Your task to perform on an android device: Show me popular videos on Youtube Image 0: 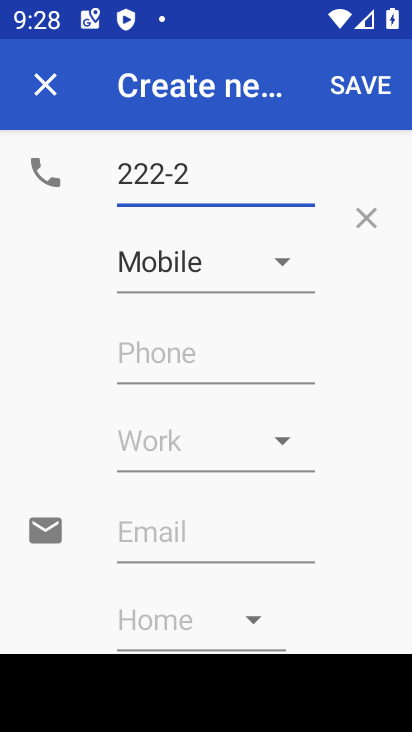
Step 0: press home button
Your task to perform on an android device: Show me popular videos on Youtube Image 1: 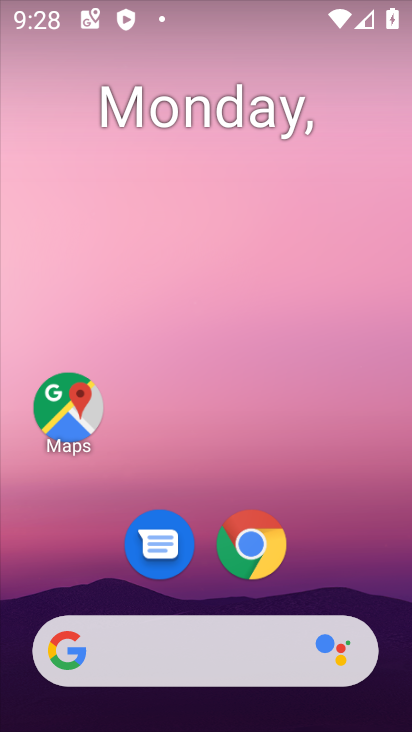
Step 1: drag from (367, 525) to (279, 41)
Your task to perform on an android device: Show me popular videos on Youtube Image 2: 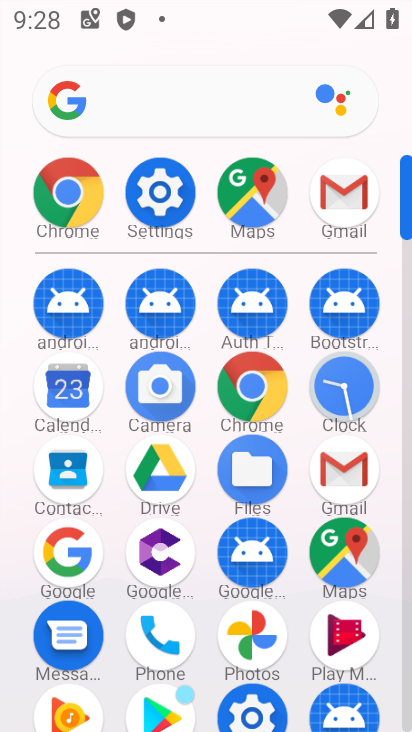
Step 2: drag from (118, 662) to (120, 210)
Your task to perform on an android device: Show me popular videos on Youtube Image 3: 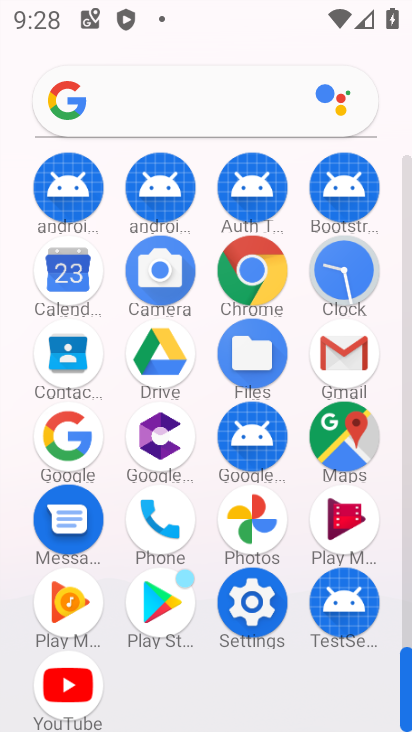
Step 3: click (72, 677)
Your task to perform on an android device: Show me popular videos on Youtube Image 4: 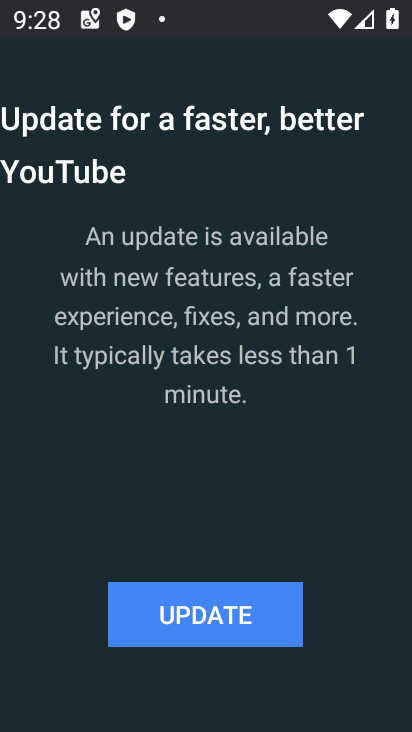
Step 4: click (204, 618)
Your task to perform on an android device: Show me popular videos on Youtube Image 5: 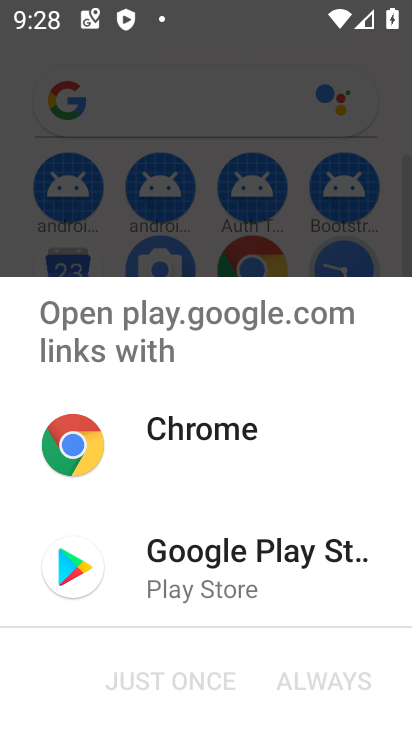
Step 5: click (220, 564)
Your task to perform on an android device: Show me popular videos on Youtube Image 6: 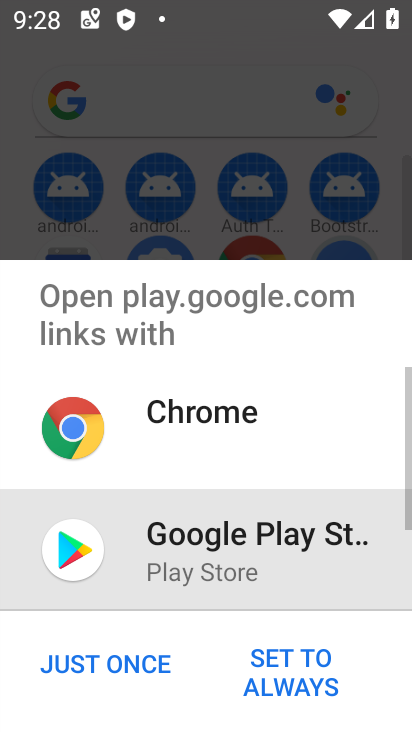
Step 6: click (98, 667)
Your task to perform on an android device: Show me popular videos on Youtube Image 7: 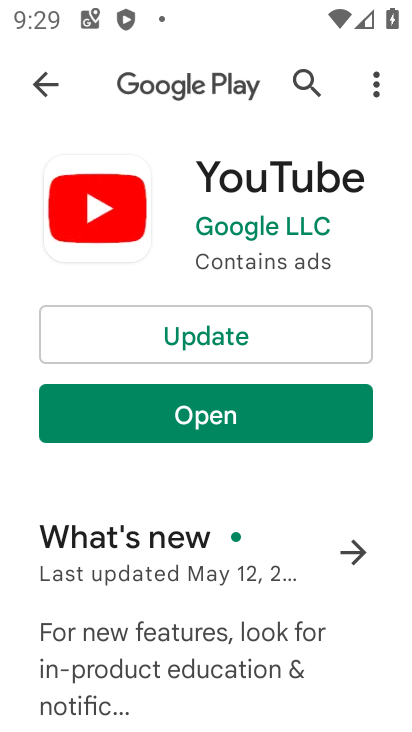
Step 7: click (208, 339)
Your task to perform on an android device: Show me popular videos on Youtube Image 8: 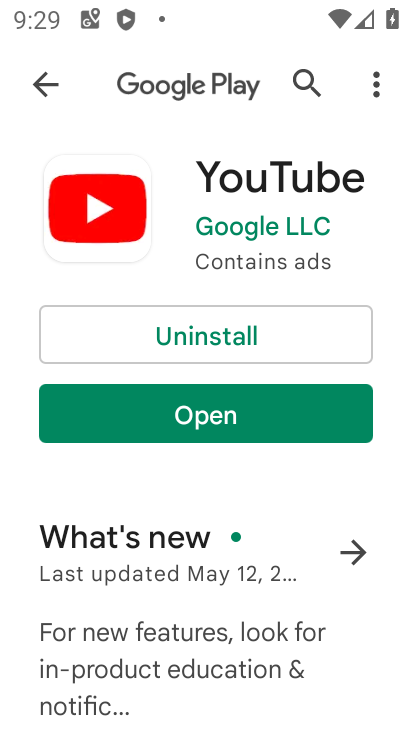
Step 8: click (200, 427)
Your task to perform on an android device: Show me popular videos on Youtube Image 9: 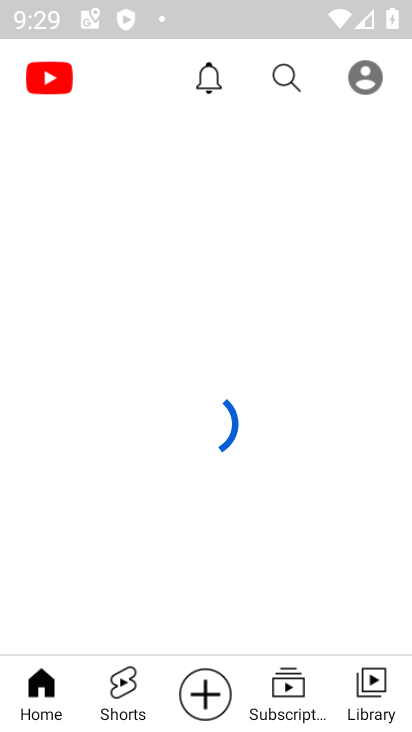
Step 9: click (164, 681)
Your task to perform on an android device: Show me popular videos on Youtube Image 10: 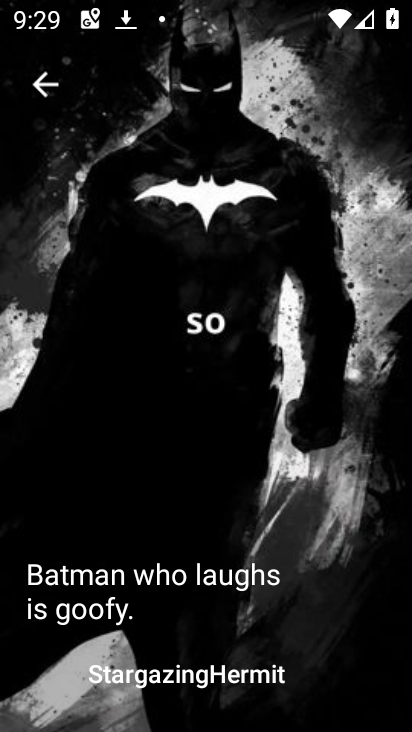
Step 10: task complete